Your task to perform on an android device: turn on showing notifications on the lock screen Image 0: 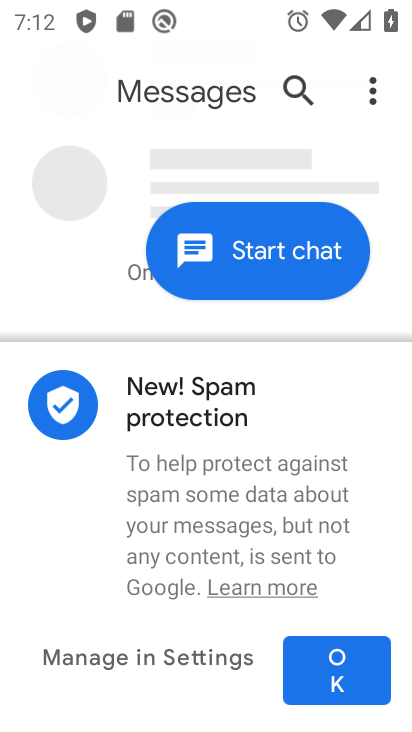
Step 0: press home button
Your task to perform on an android device: turn on showing notifications on the lock screen Image 1: 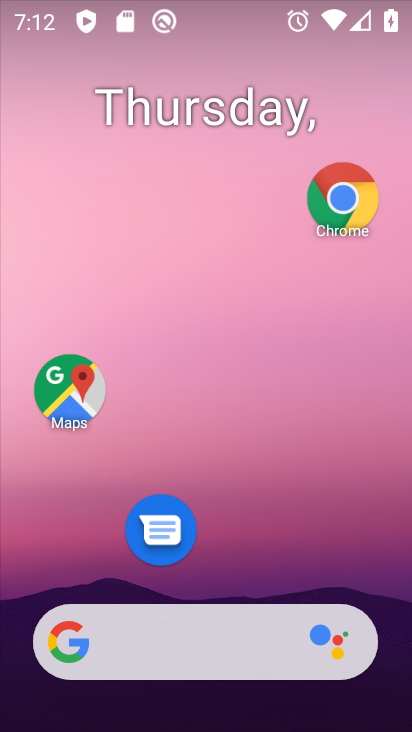
Step 1: drag from (228, 684) to (302, 270)
Your task to perform on an android device: turn on showing notifications on the lock screen Image 2: 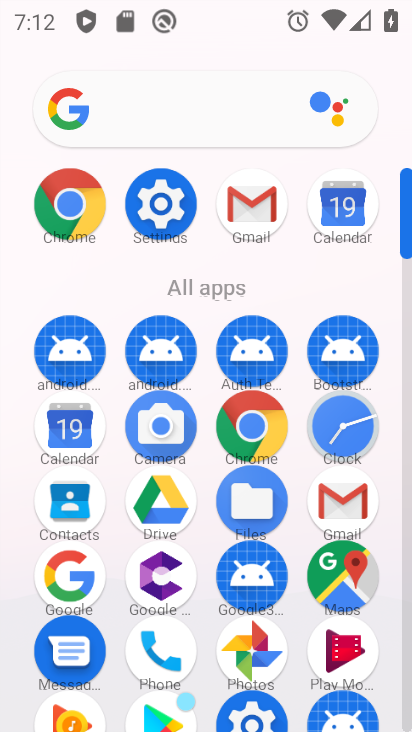
Step 2: click (184, 199)
Your task to perform on an android device: turn on showing notifications on the lock screen Image 3: 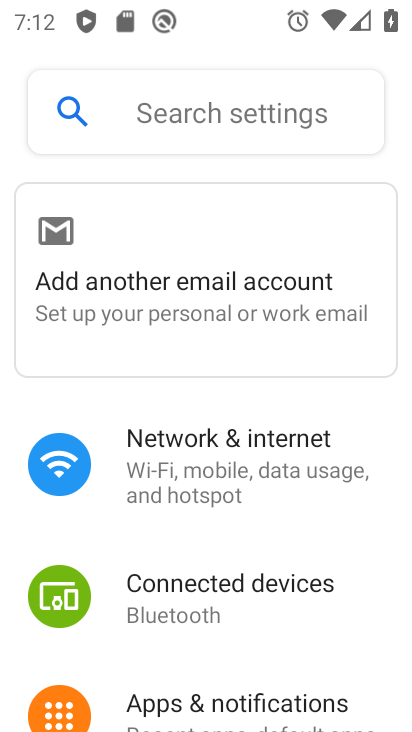
Step 3: click (189, 117)
Your task to perform on an android device: turn on showing notifications on the lock screen Image 4: 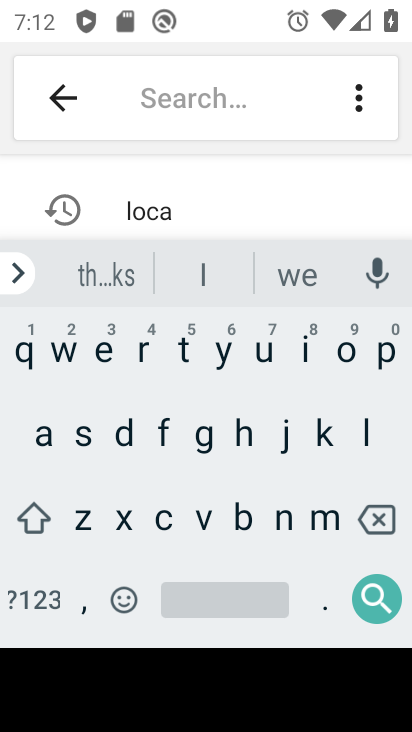
Step 4: click (287, 513)
Your task to perform on an android device: turn on showing notifications on the lock screen Image 5: 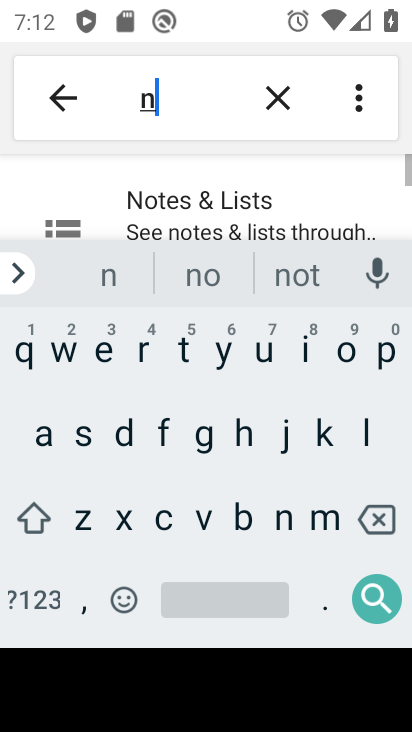
Step 5: click (337, 352)
Your task to perform on an android device: turn on showing notifications on the lock screen Image 6: 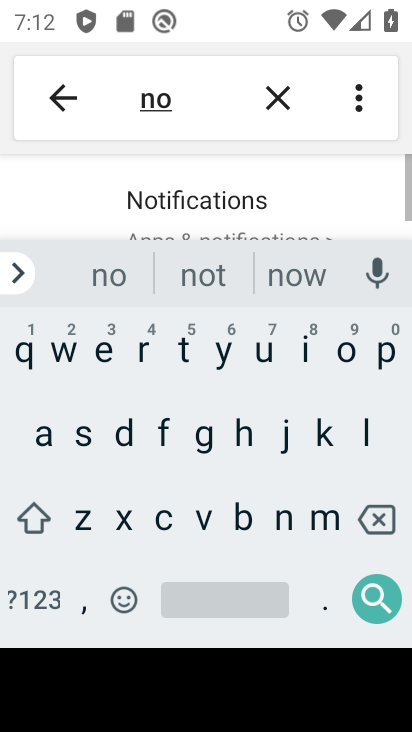
Step 6: click (192, 206)
Your task to perform on an android device: turn on showing notifications on the lock screen Image 7: 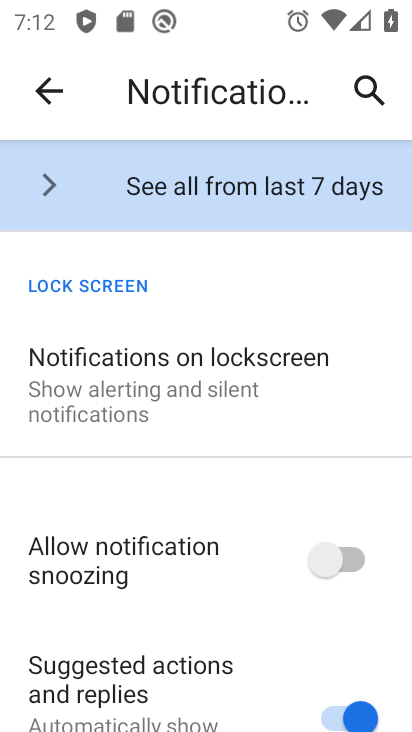
Step 7: click (126, 374)
Your task to perform on an android device: turn on showing notifications on the lock screen Image 8: 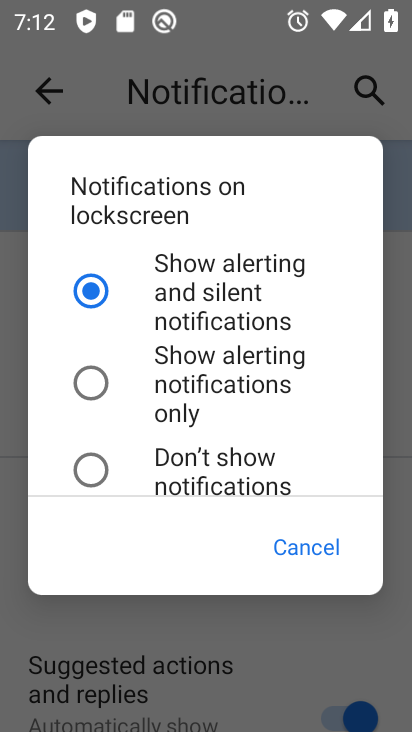
Step 8: task complete